Your task to perform on an android device: open a bookmark in the chrome app Image 0: 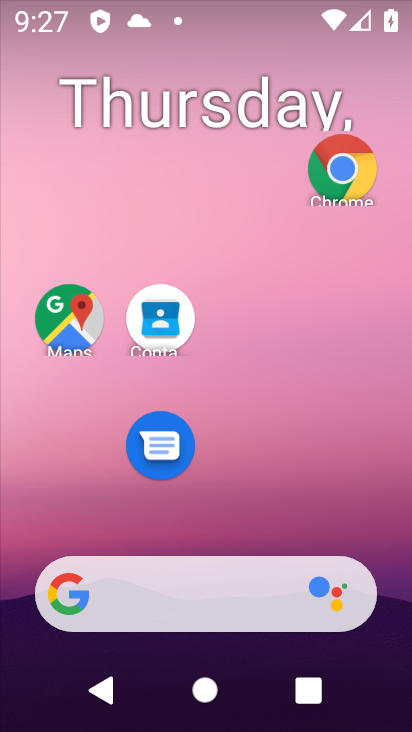
Step 0: drag from (277, 644) to (266, 256)
Your task to perform on an android device: open a bookmark in the chrome app Image 1: 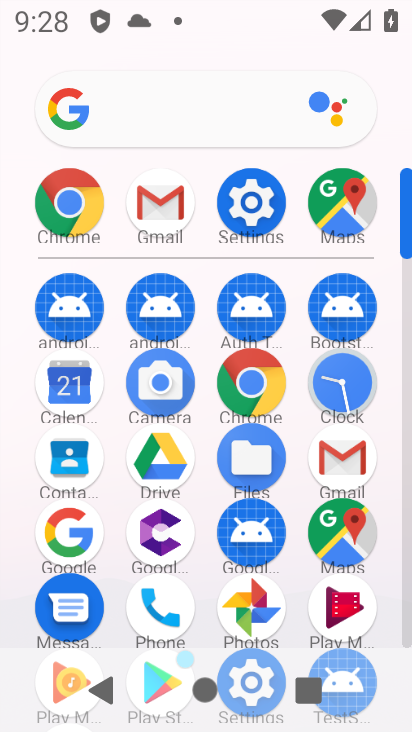
Step 1: click (71, 215)
Your task to perform on an android device: open a bookmark in the chrome app Image 2: 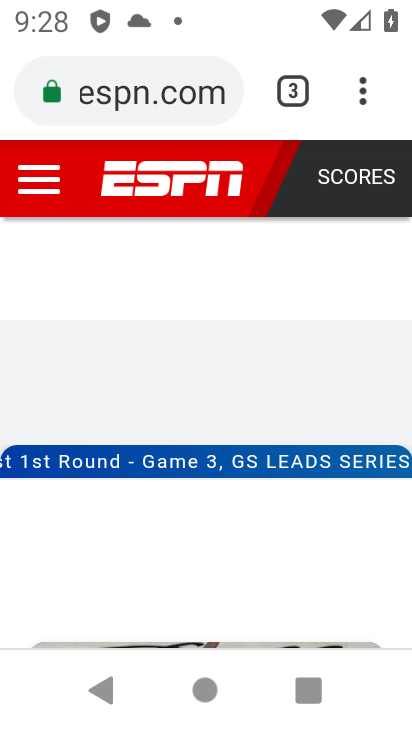
Step 2: click (358, 93)
Your task to perform on an android device: open a bookmark in the chrome app Image 3: 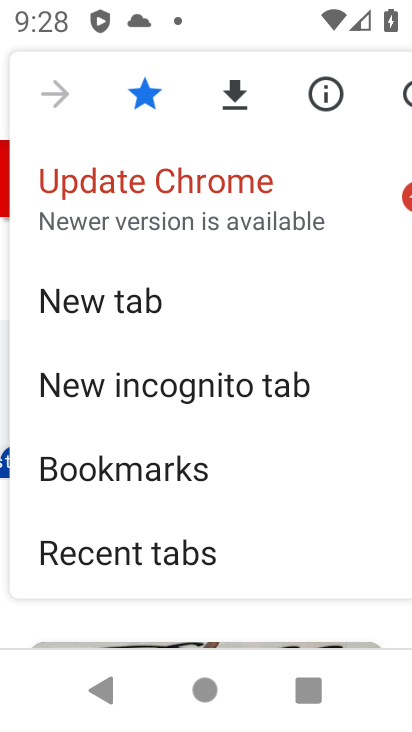
Step 3: click (152, 461)
Your task to perform on an android device: open a bookmark in the chrome app Image 4: 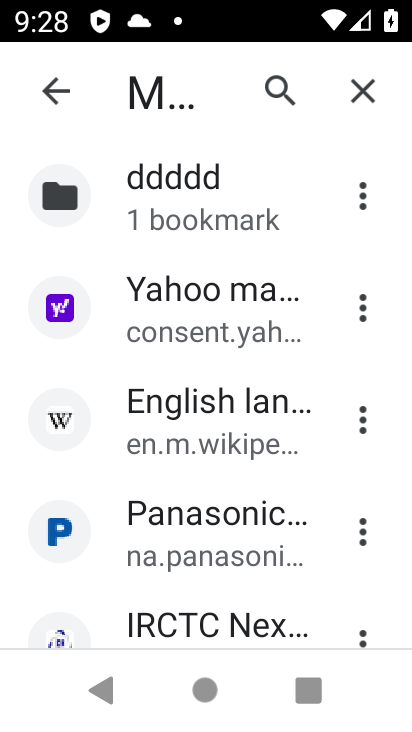
Step 4: drag from (159, 504) to (170, 403)
Your task to perform on an android device: open a bookmark in the chrome app Image 5: 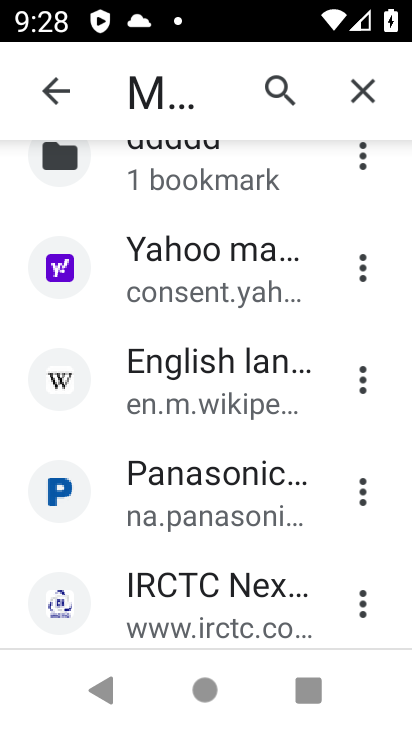
Step 5: click (156, 478)
Your task to perform on an android device: open a bookmark in the chrome app Image 6: 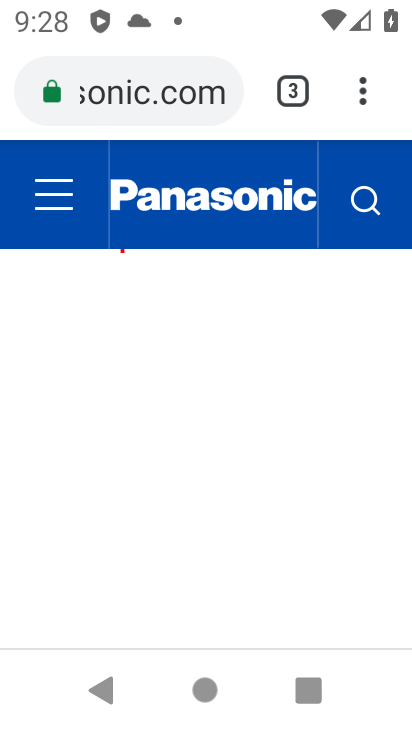
Step 6: task complete